Your task to perform on an android device: delete the emails in spam in the gmail app Image 0: 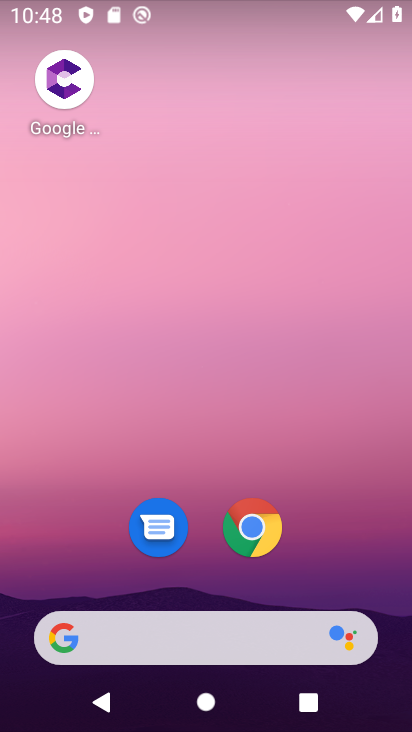
Step 0: drag from (202, 587) to (190, 5)
Your task to perform on an android device: delete the emails in spam in the gmail app Image 1: 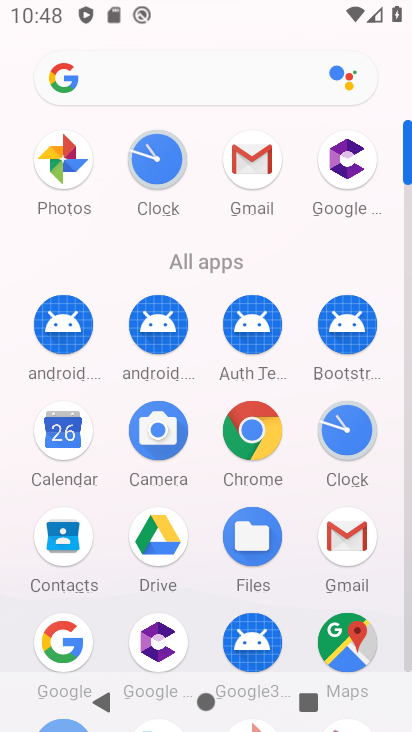
Step 1: click (254, 166)
Your task to perform on an android device: delete the emails in spam in the gmail app Image 2: 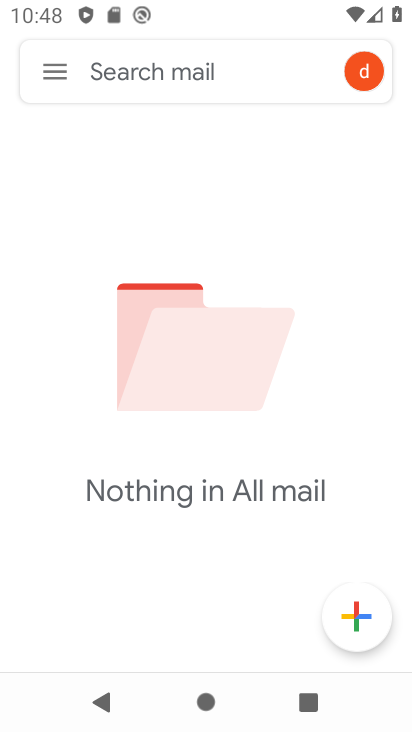
Step 2: task complete